Your task to perform on an android device: Open Chrome and go to settings Image 0: 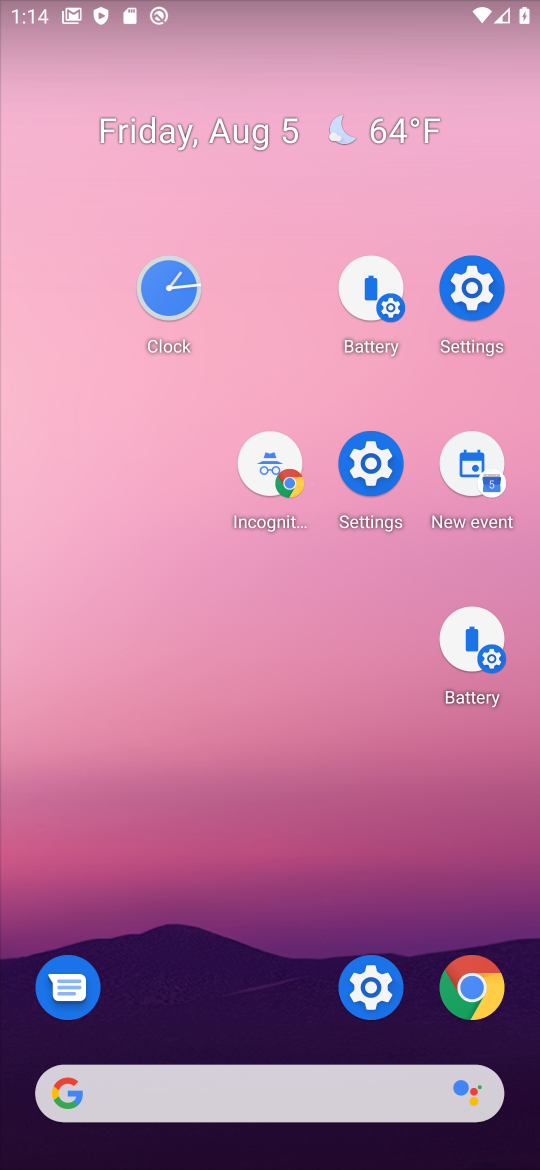
Step 0: drag from (330, 218) to (320, 299)
Your task to perform on an android device: Open Chrome and go to settings Image 1: 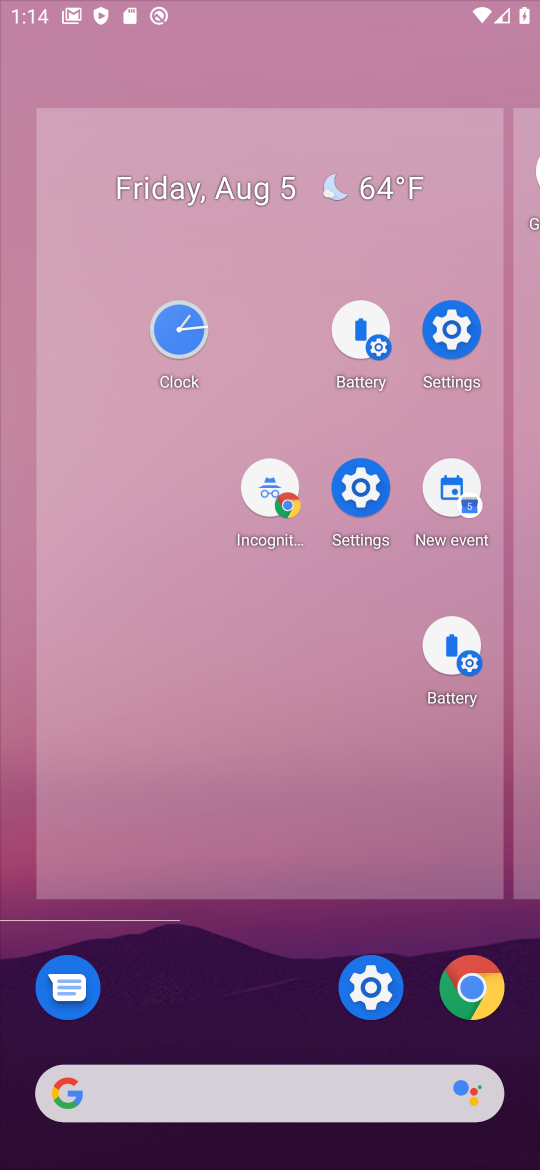
Step 1: drag from (312, 765) to (278, 182)
Your task to perform on an android device: Open Chrome and go to settings Image 2: 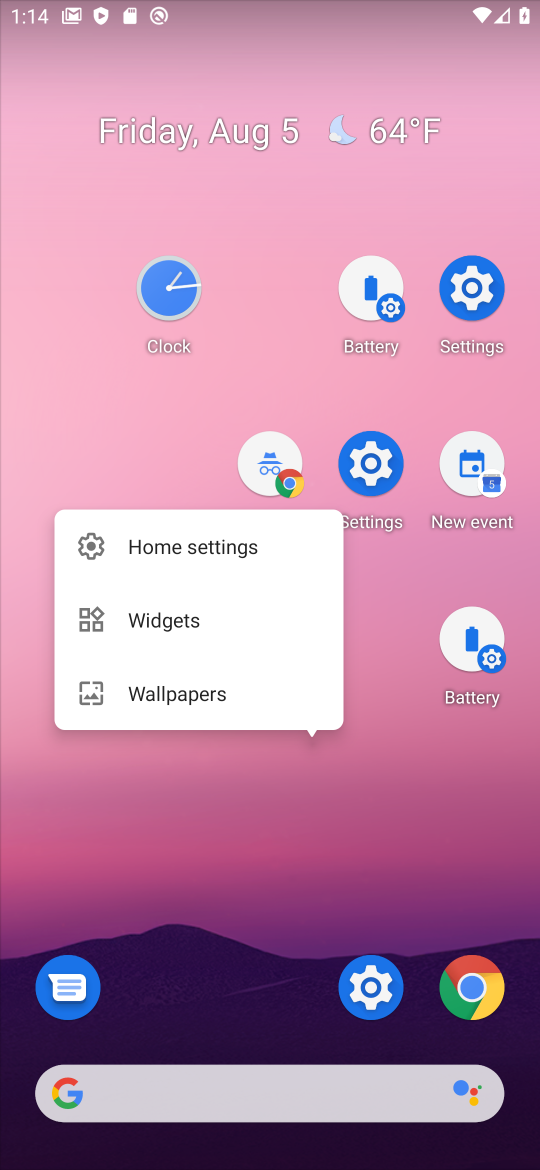
Step 2: drag from (427, 926) to (291, 309)
Your task to perform on an android device: Open Chrome and go to settings Image 3: 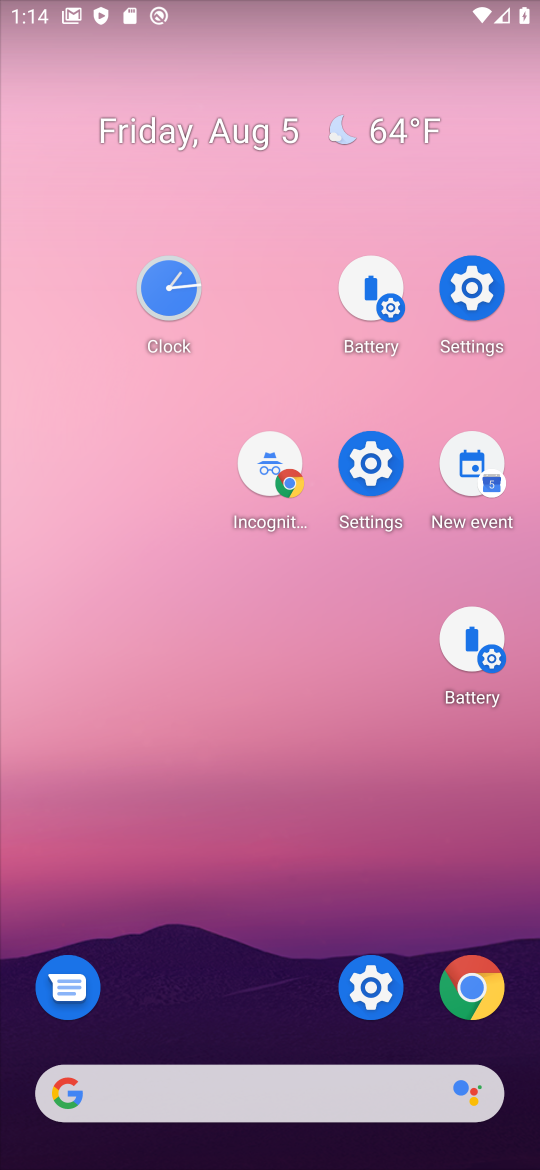
Step 3: drag from (378, 679) to (279, 221)
Your task to perform on an android device: Open Chrome and go to settings Image 4: 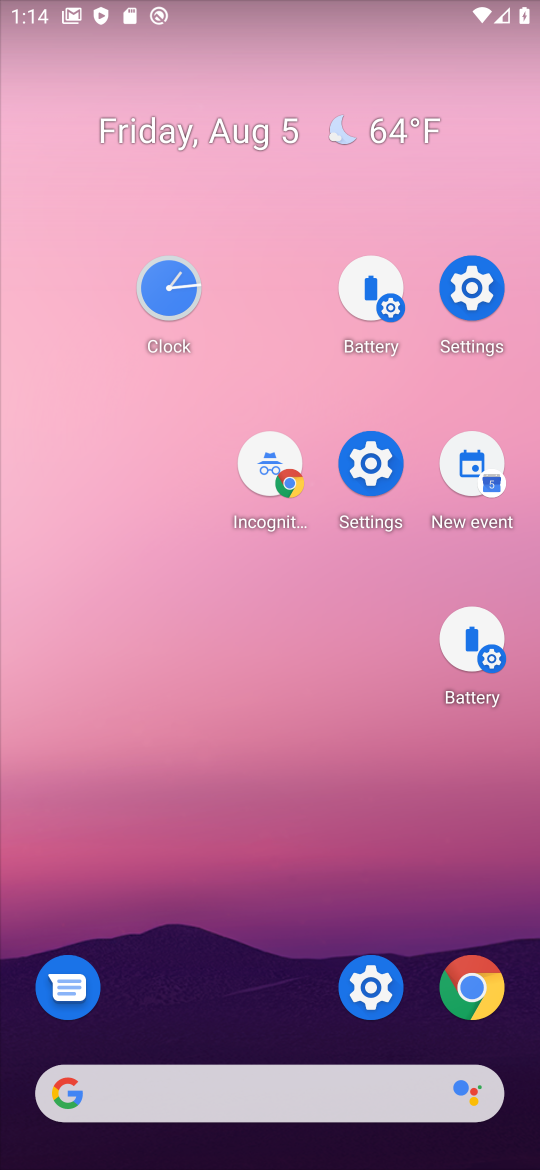
Step 4: drag from (314, 974) to (246, 479)
Your task to perform on an android device: Open Chrome and go to settings Image 5: 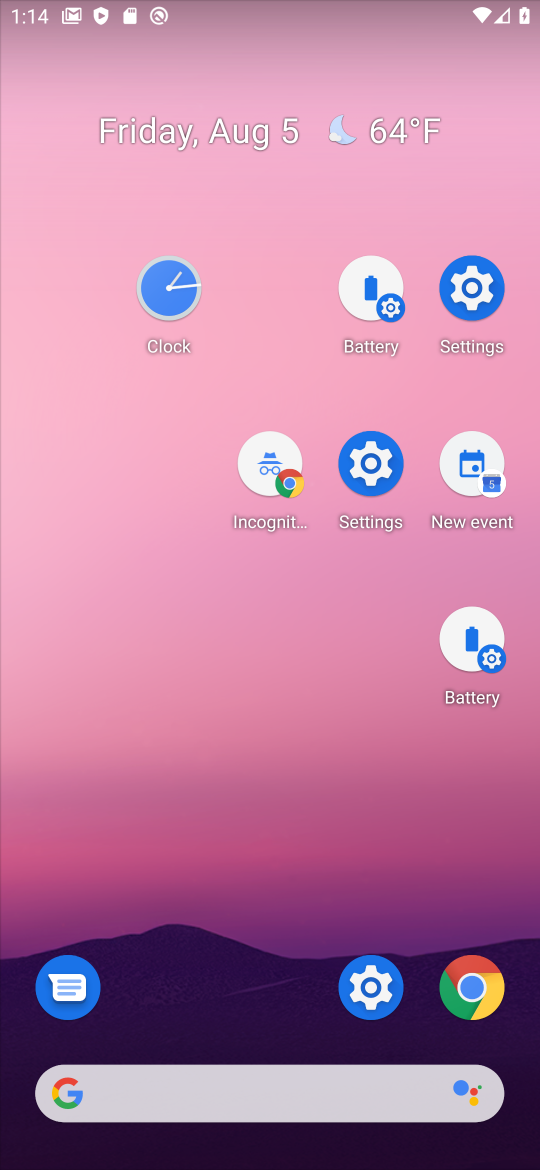
Step 5: click (368, 477)
Your task to perform on an android device: Open Chrome and go to settings Image 6: 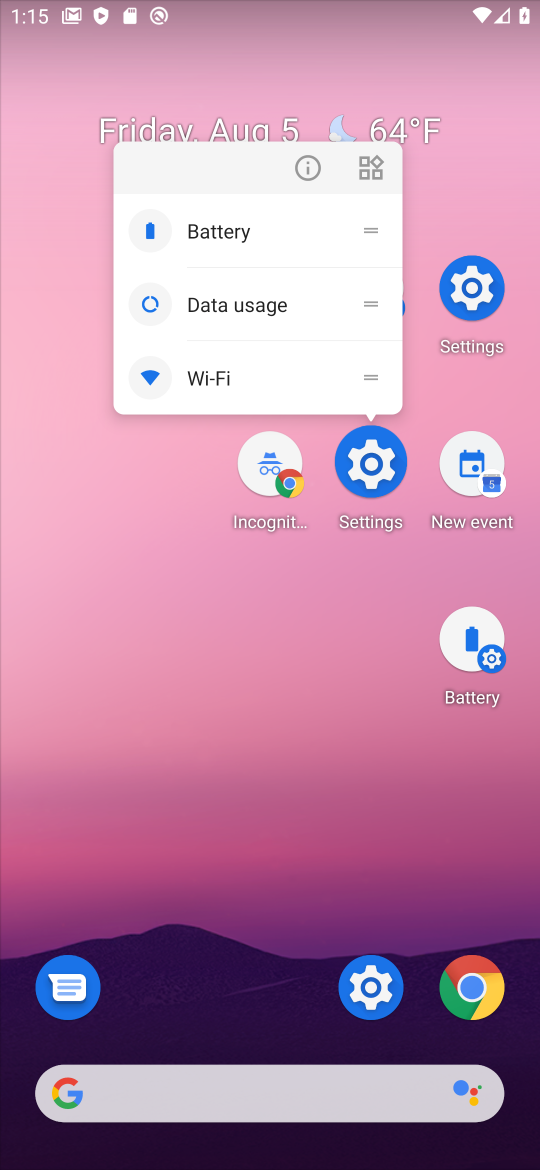
Step 6: drag from (303, 741) to (119, 718)
Your task to perform on an android device: Open Chrome and go to settings Image 7: 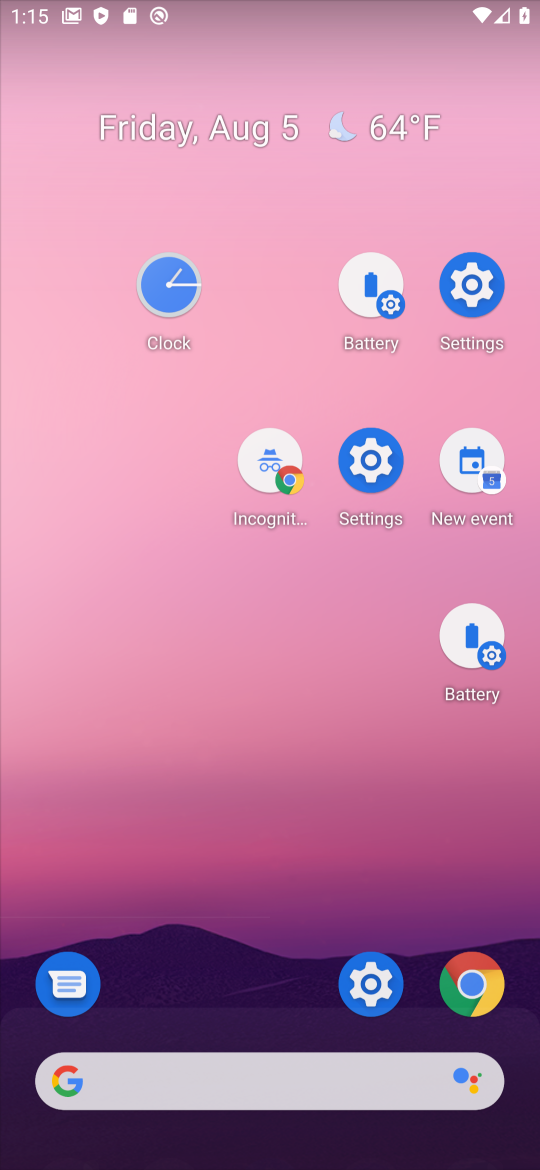
Step 7: click (462, 1004)
Your task to perform on an android device: Open Chrome and go to settings Image 8: 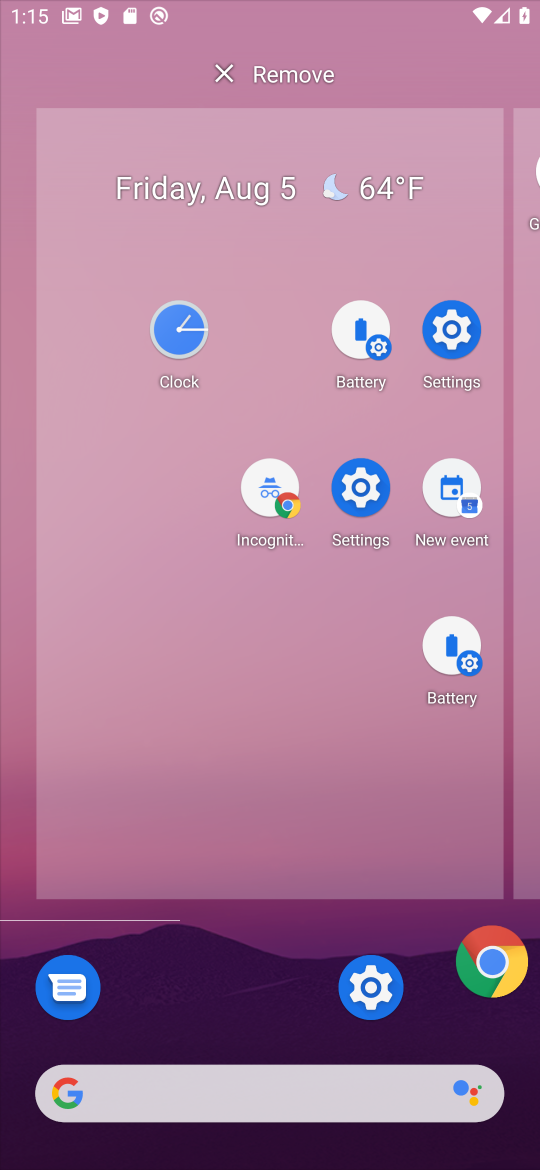
Step 8: drag from (330, 1018) to (222, 249)
Your task to perform on an android device: Open Chrome and go to settings Image 9: 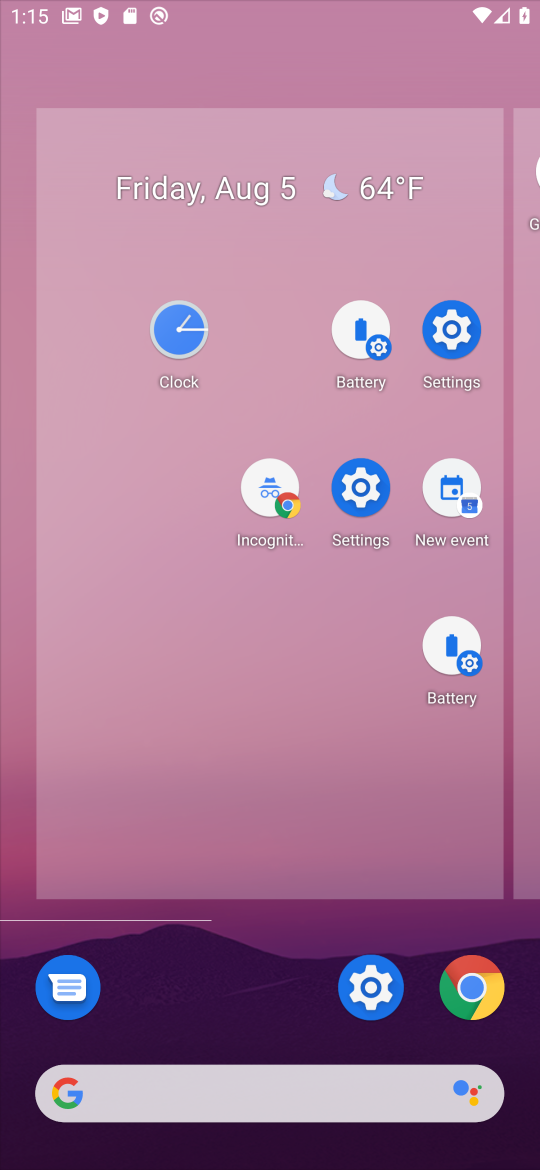
Step 9: drag from (233, 854) to (83, 358)
Your task to perform on an android device: Open Chrome and go to settings Image 10: 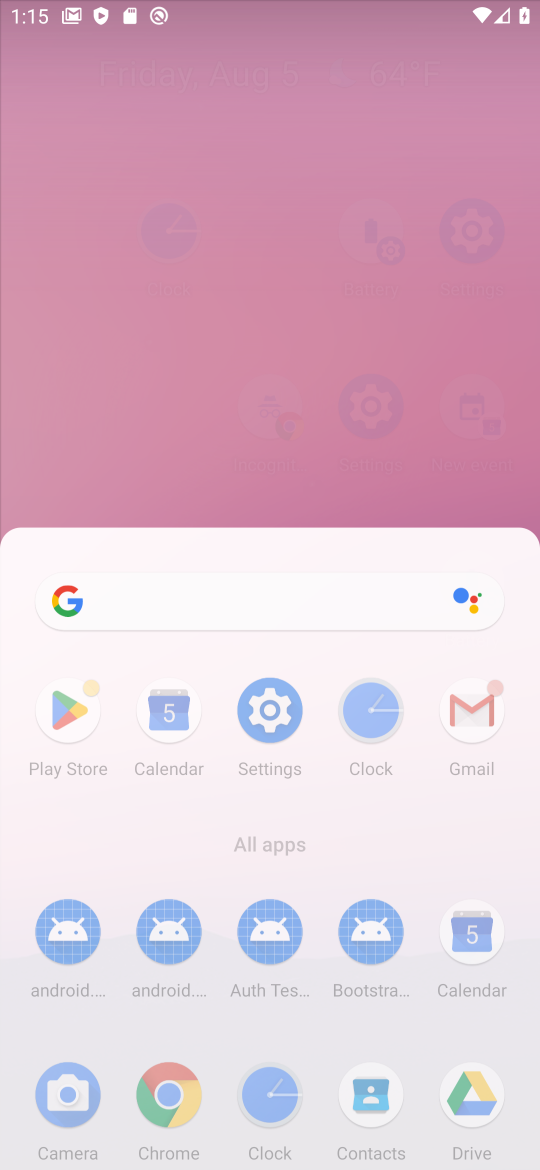
Step 10: drag from (224, 603) to (57, 146)
Your task to perform on an android device: Open Chrome and go to settings Image 11: 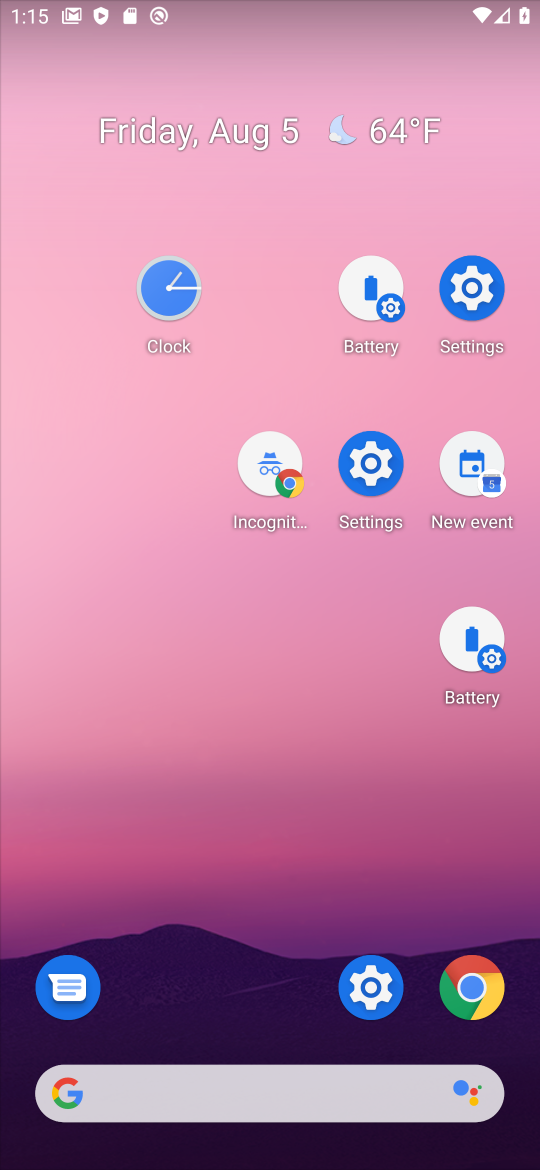
Step 11: drag from (190, 537) to (125, 152)
Your task to perform on an android device: Open Chrome and go to settings Image 12: 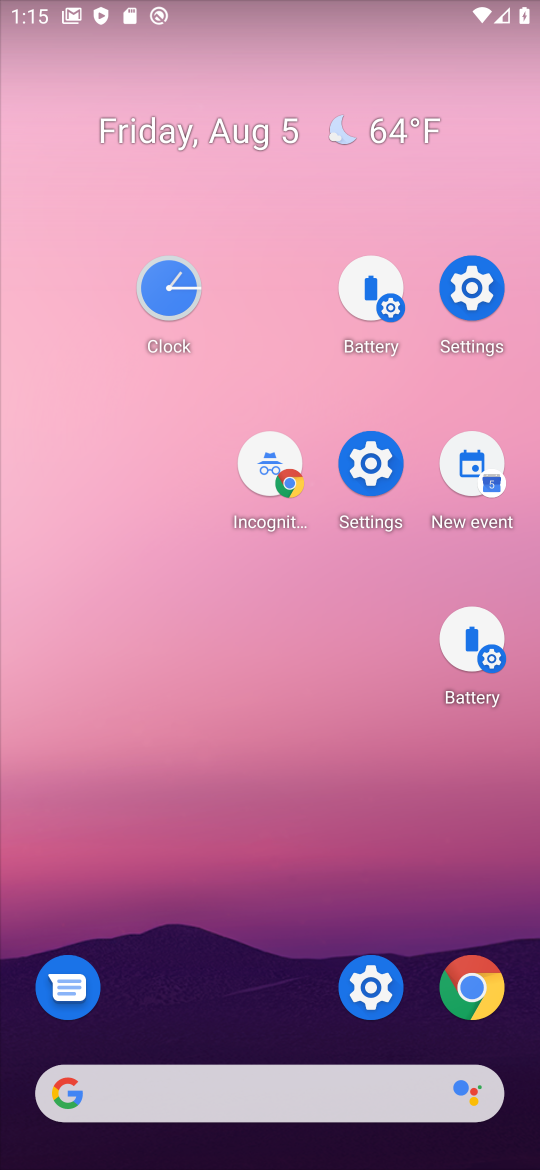
Step 12: drag from (171, 526) to (293, 164)
Your task to perform on an android device: Open Chrome and go to settings Image 13: 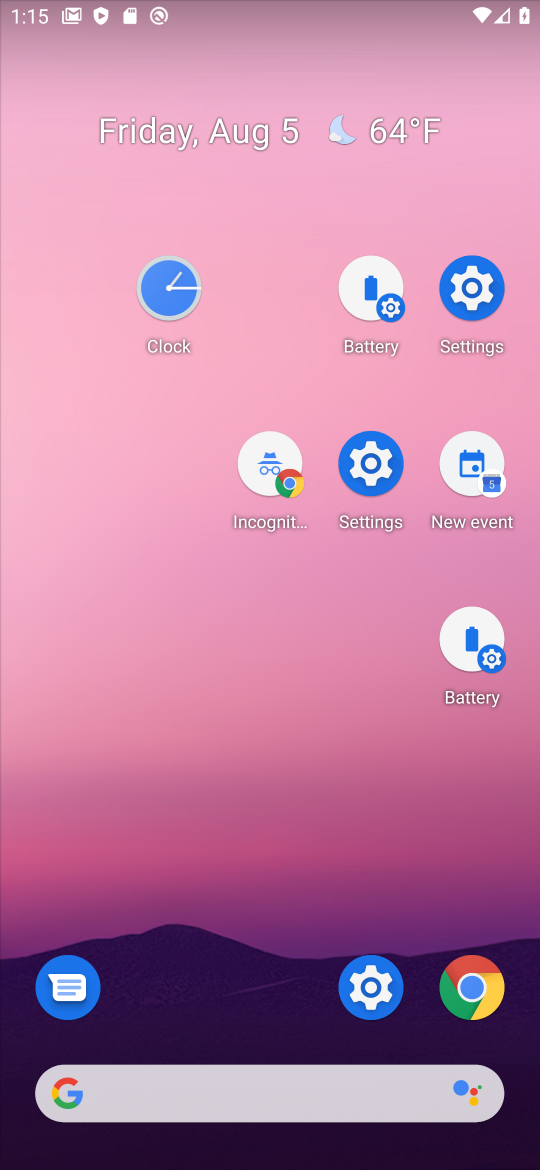
Step 13: drag from (258, 309) to (192, 173)
Your task to perform on an android device: Open Chrome and go to settings Image 14: 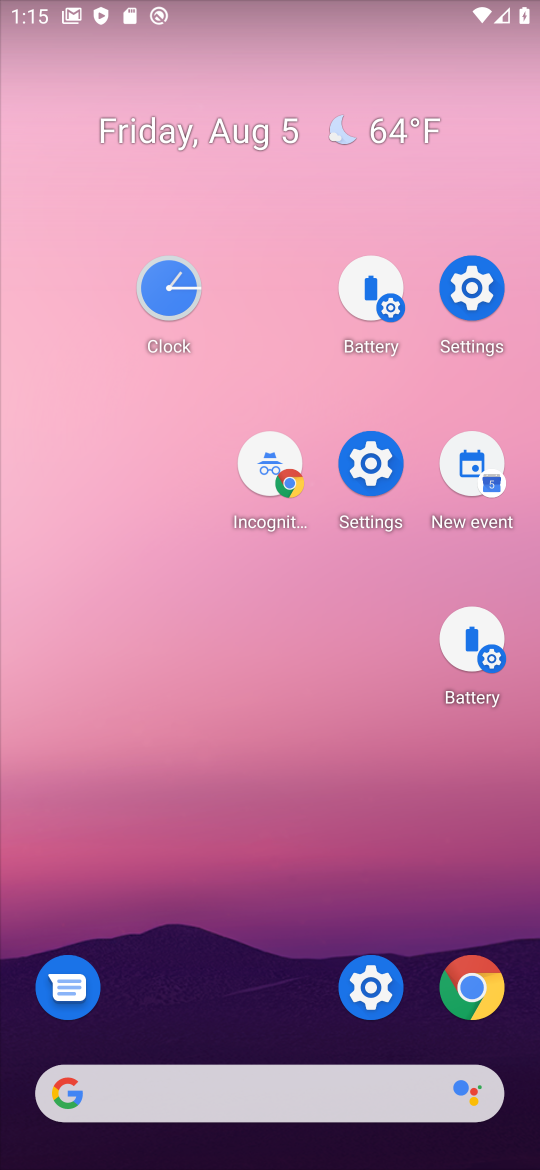
Step 14: drag from (345, 767) to (212, 246)
Your task to perform on an android device: Open Chrome and go to settings Image 15: 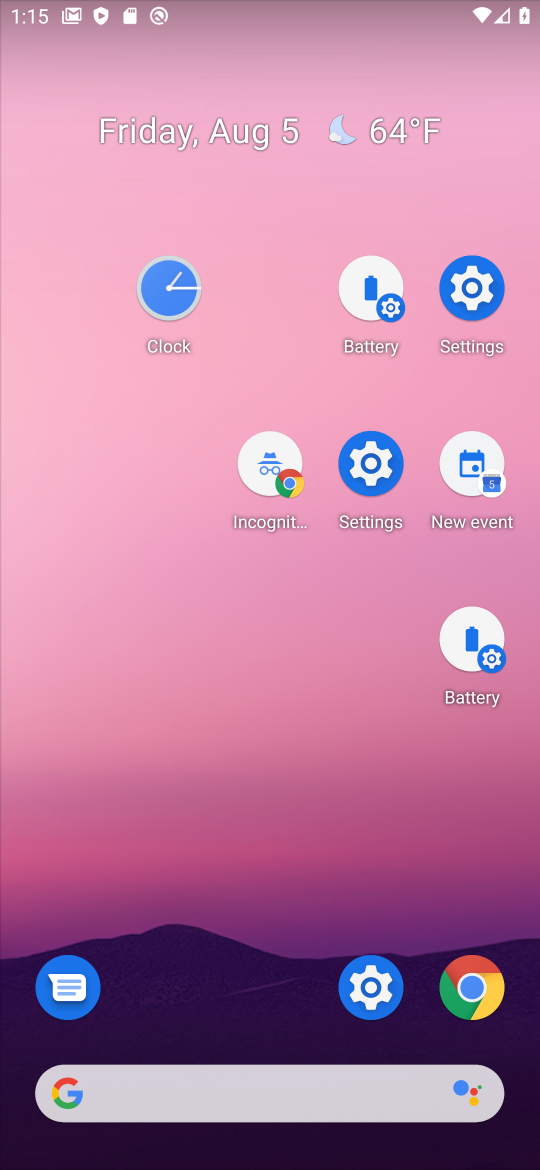
Step 15: click (254, 141)
Your task to perform on an android device: Open Chrome and go to settings Image 16: 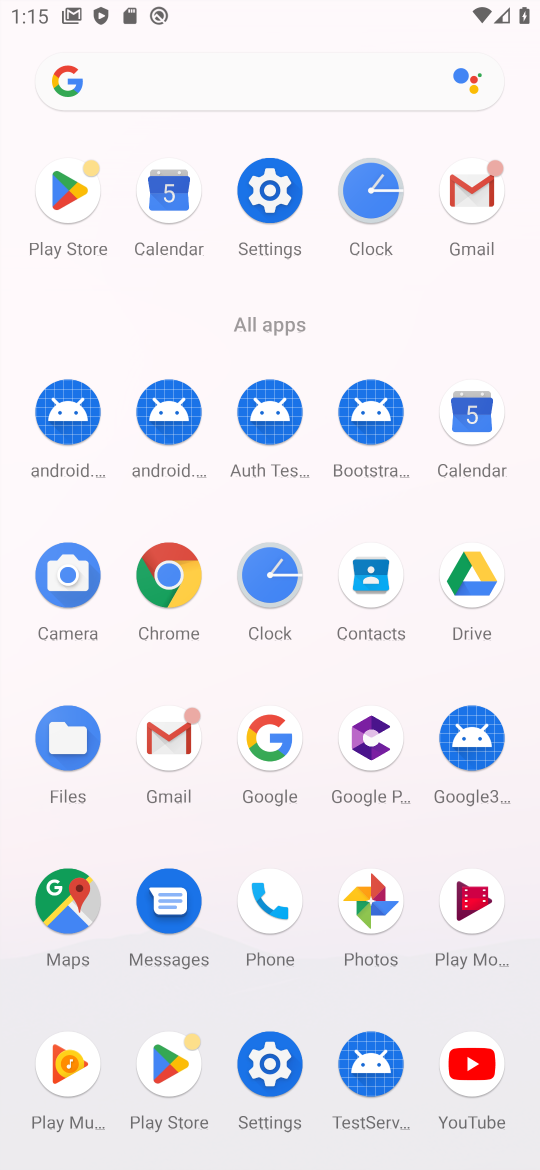
Step 16: click (285, 1082)
Your task to perform on an android device: Open Chrome and go to settings Image 17: 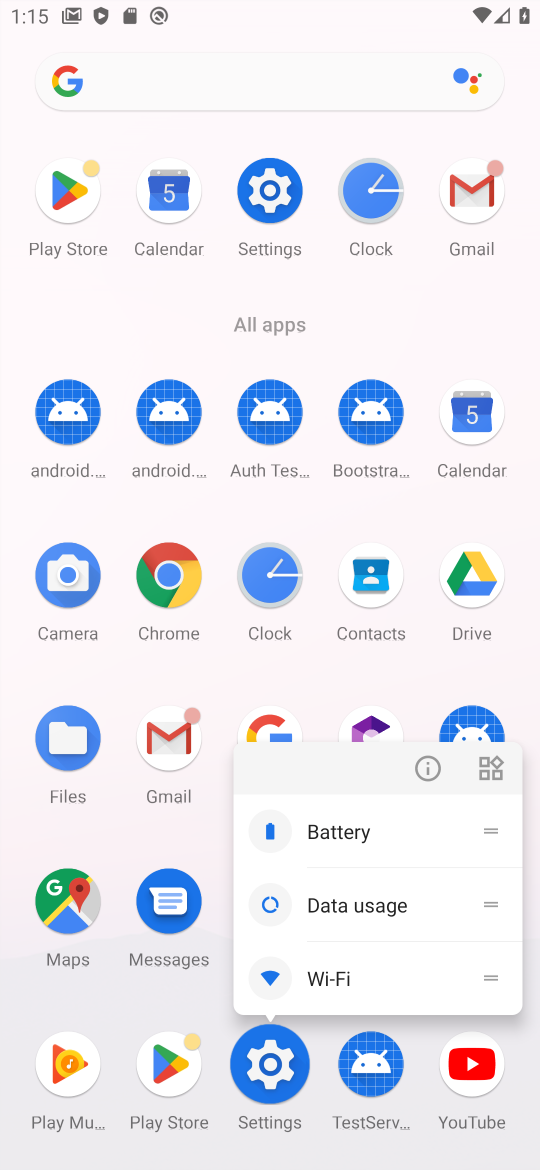
Step 17: click (280, 1083)
Your task to perform on an android device: Open Chrome and go to settings Image 18: 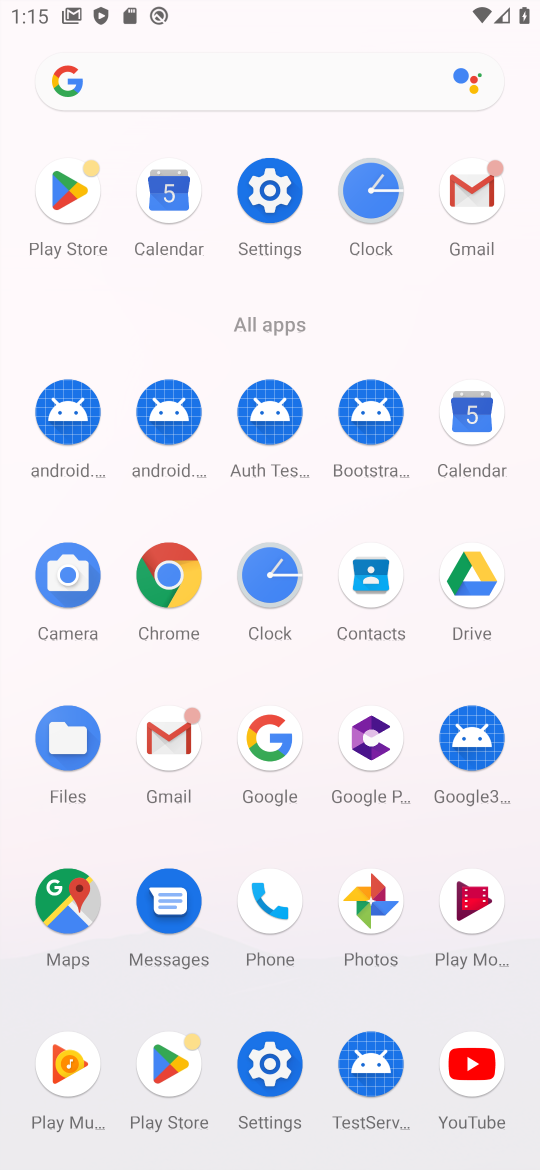
Step 18: click (280, 1076)
Your task to perform on an android device: Open Chrome and go to settings Image 19: 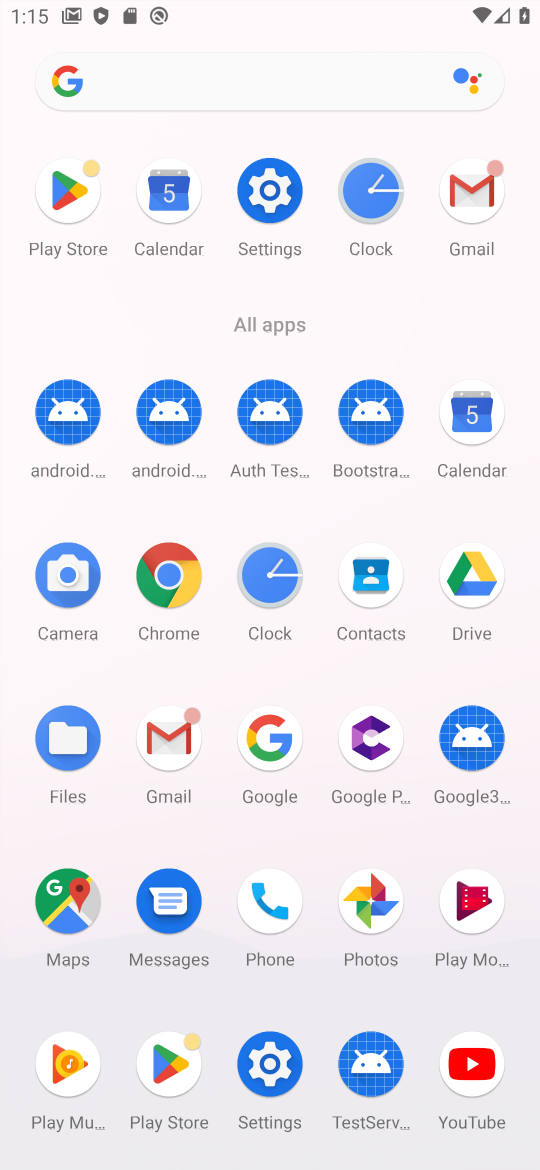
Step 19: click (277, 1073)
Your task to perform on an android device: Open Chrome and go to settings Image 20: 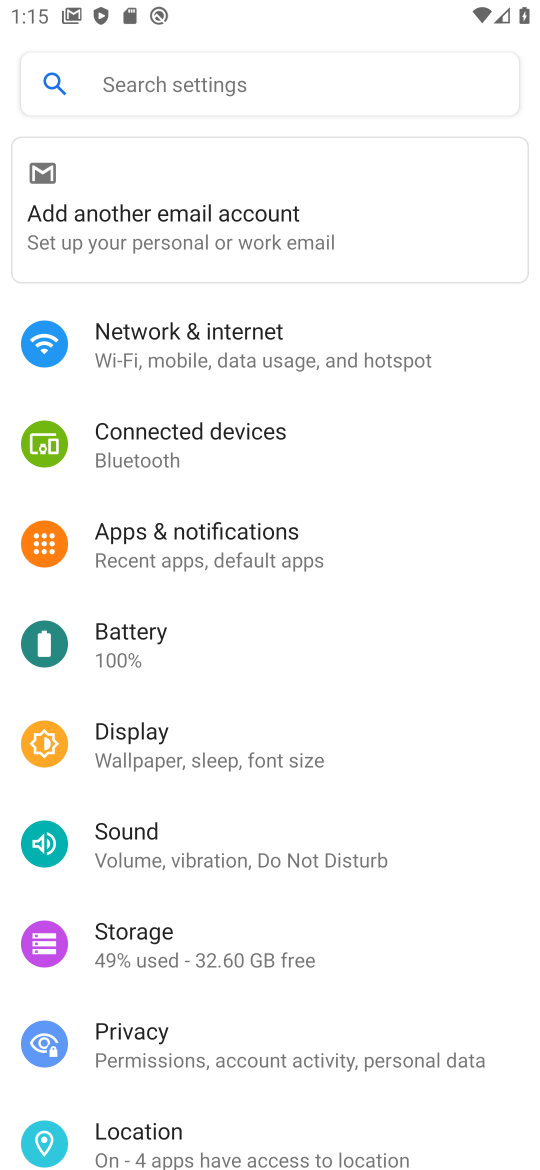
Step 20: press back button
Your task to perform on an android device: Open Chrome and go to settings Image 21: 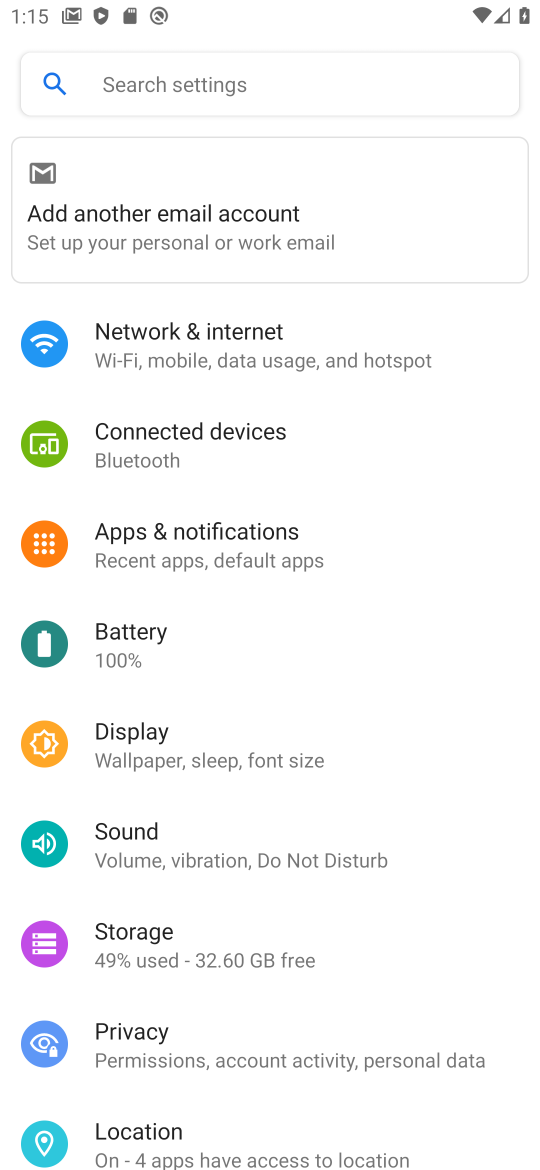
Step 21: press back button
Your task to perform on an android device: Open Chrome and go to settings Image 22: 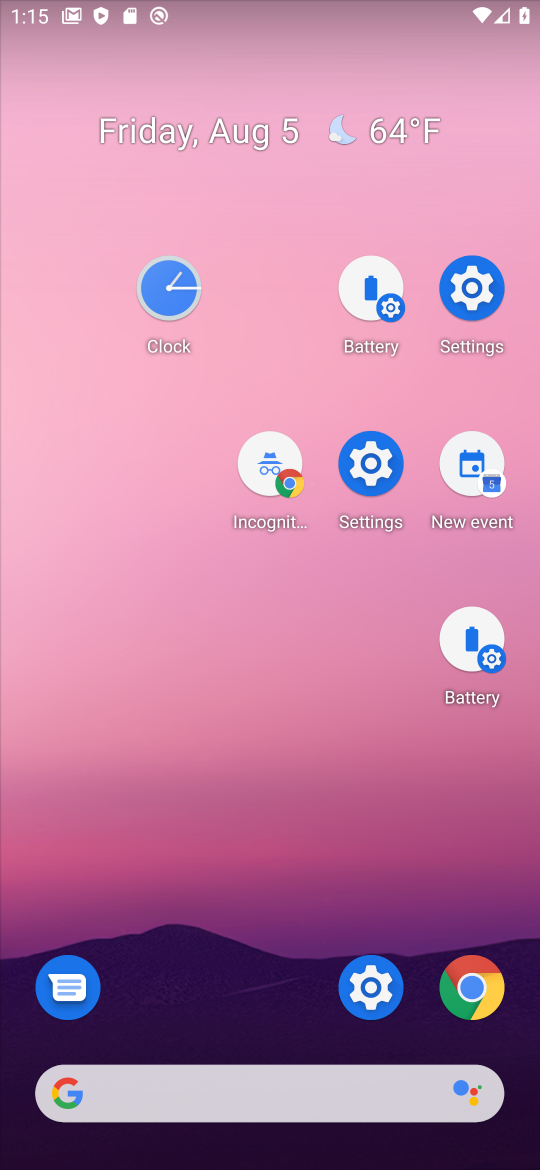
Step 22: drag from (360, 1065) to (249, 317)
Your task to perform on an android device: Open Chrome and go to settings Image 23: 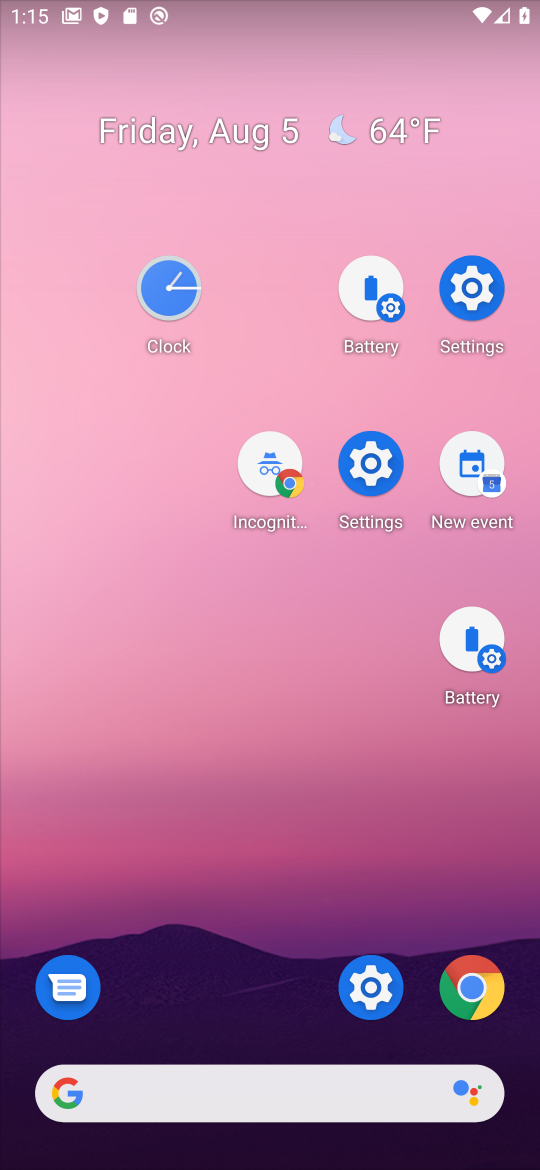
Step 23: click (136, 444)
Your task to perform on an android device: Open Chrome and go to settings Image 24: 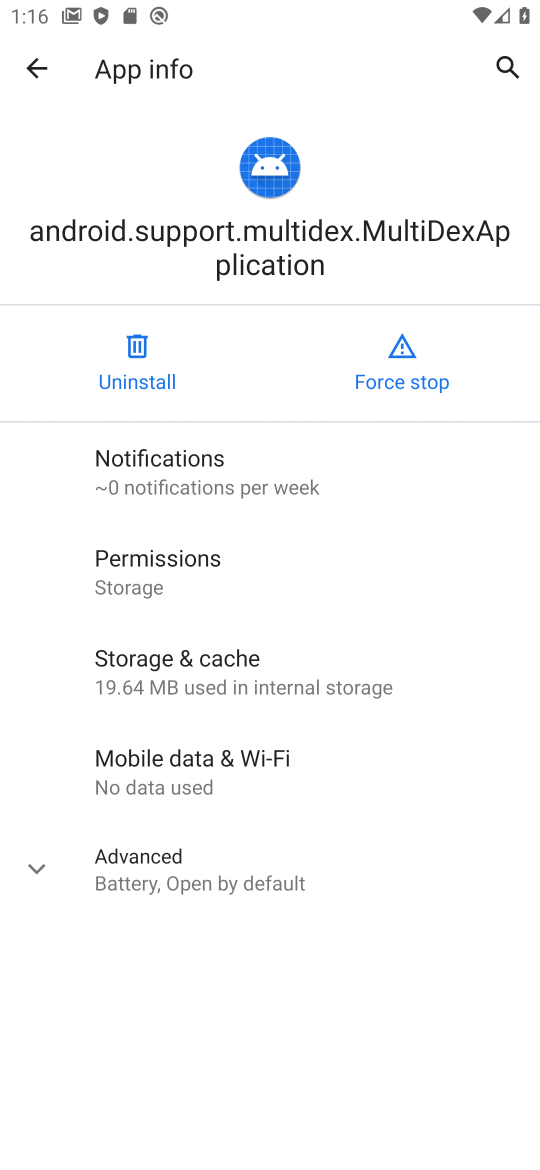
Step 24: drag from (144, 455) to (80, 3)
Your task to perform on an android device: Open Chrome and go to settings Image 25: 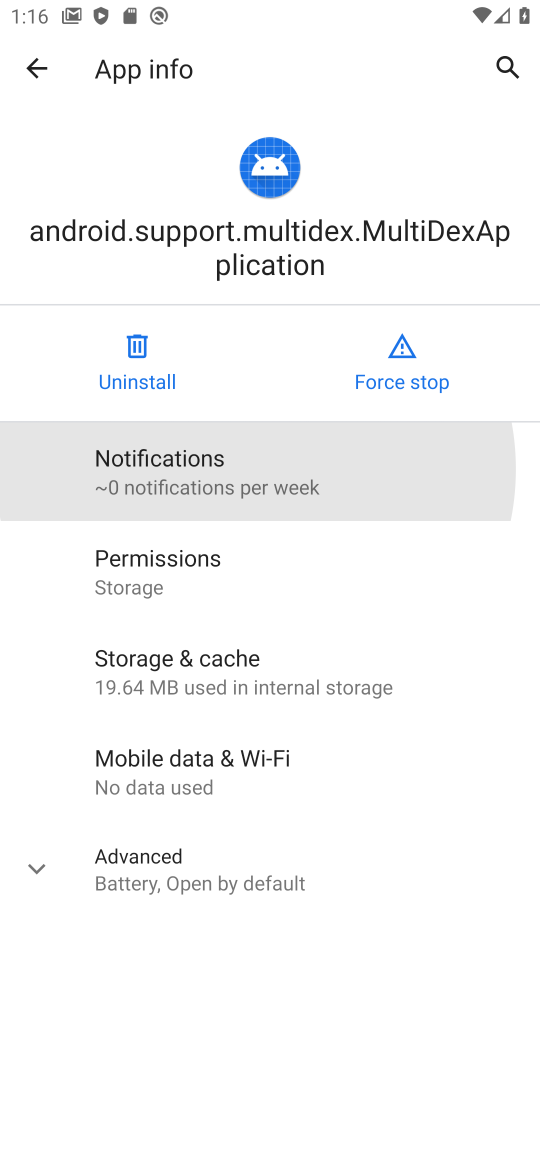
Step 25: click (148, 252)
Your task to perform on an android device: Open Chrome and go to settings Image 26: 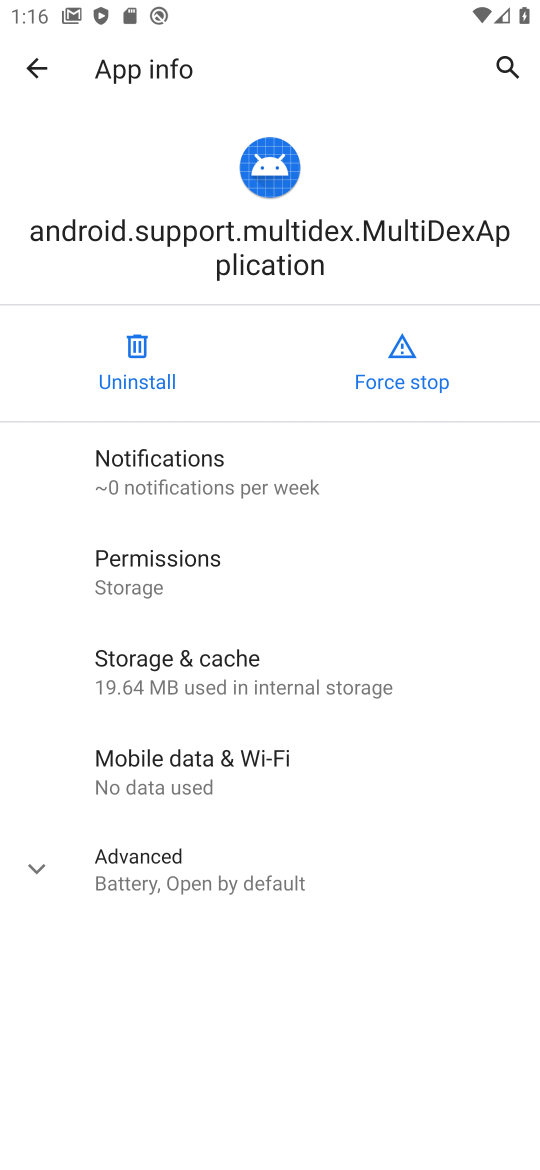
Step 26: click (30, 71)
Your task to perform on an android device: Open Chrome and go to settings Image 27: 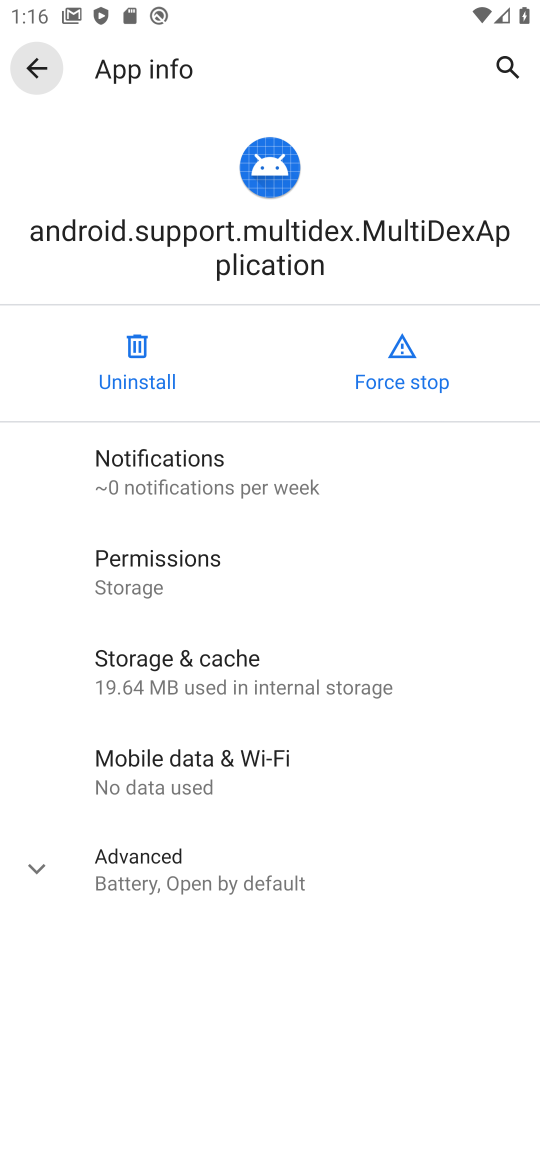
Step 27: click (30, 71)
Your task to perform on an android device: Open Chrome and go to settings Image 28: 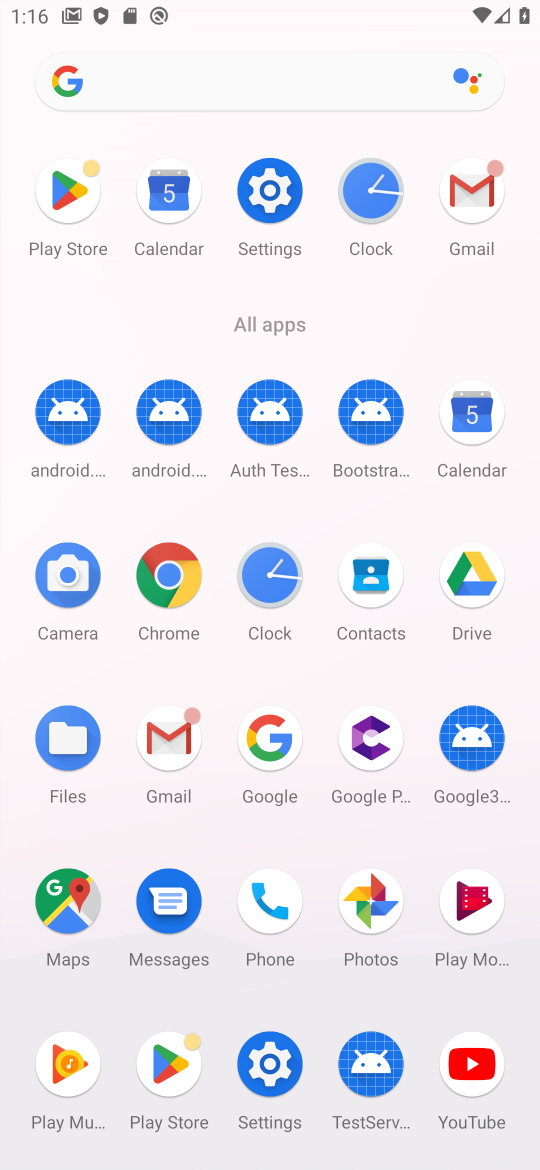
Step 28: click (279, 1074)
Your task to perform on an android device: Open Chrome and go to settings Image 29: 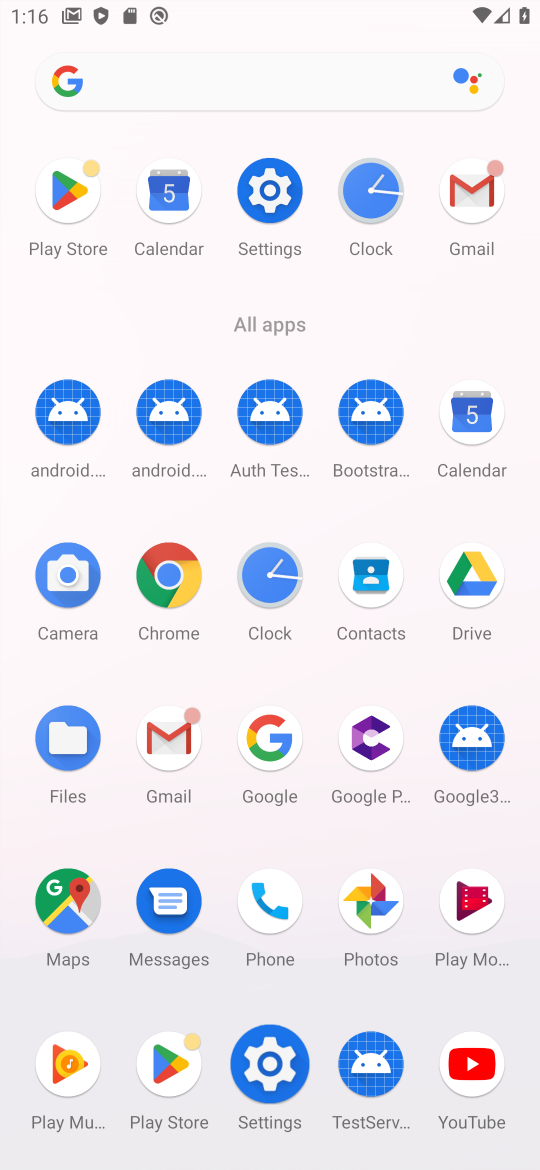
Step 29: click (279, 1086)
Your task to perform on an android device: Open Chrome and go to settings Image 30: 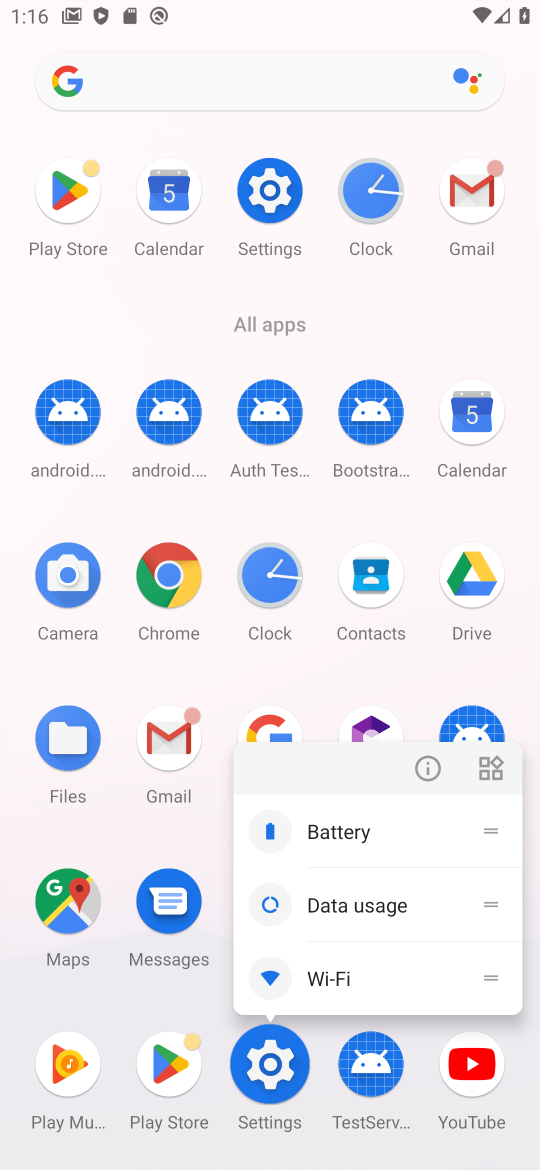
Step 30: click (279, 1087)
Your task to perform on an android device: Open Chrome and go to settings Image 31: 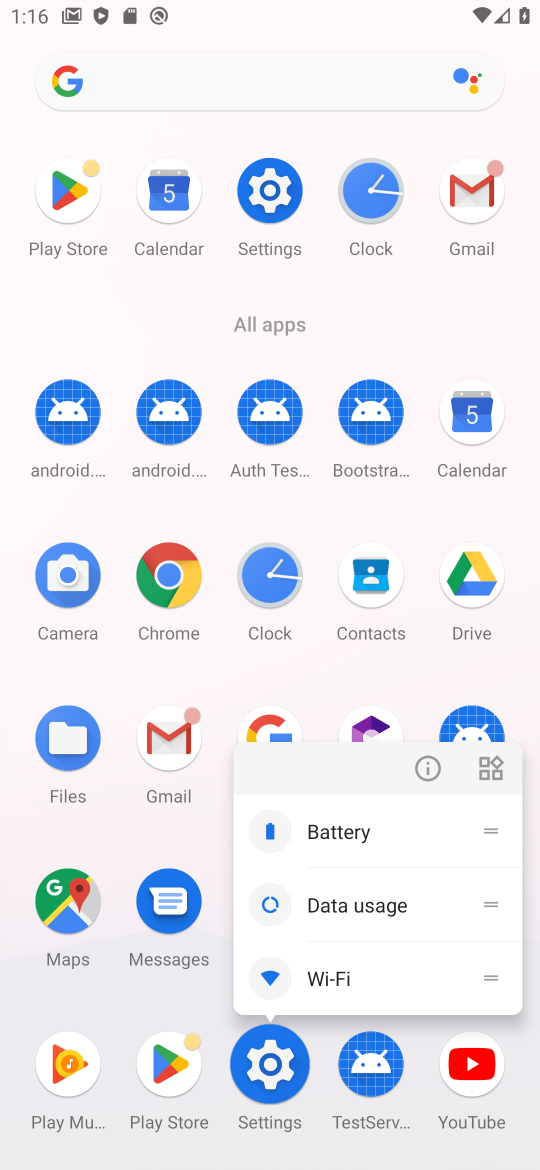
Step 31: click (279, 1087)
Your task to perform on an android device: Open Chrome and go to settings Image 32: 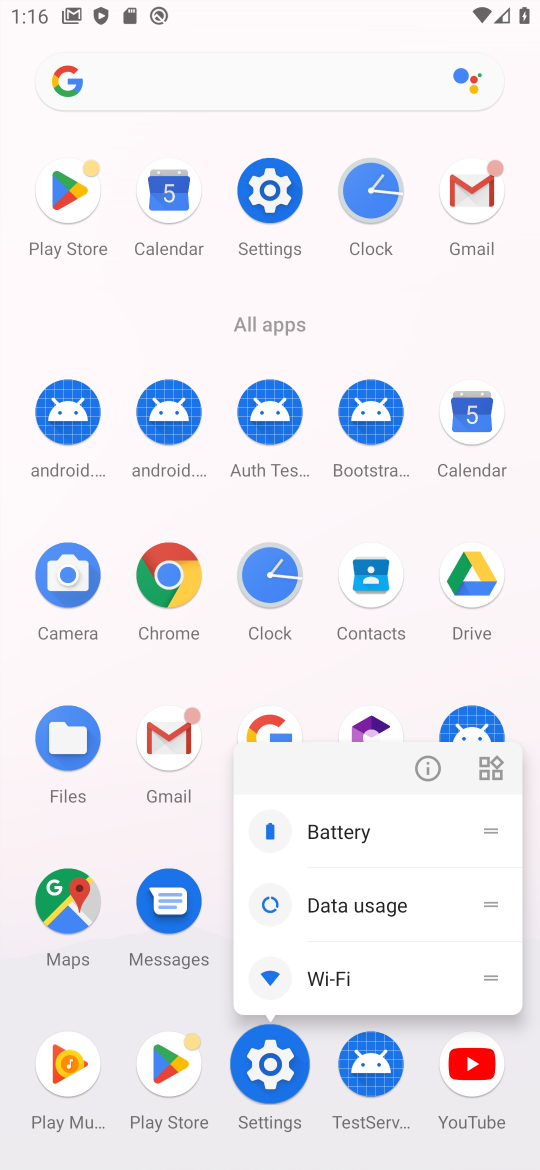
Step 32: click (282, 1088)
Your task to perform on an android device: Open Chrome and go to settings Image 33: 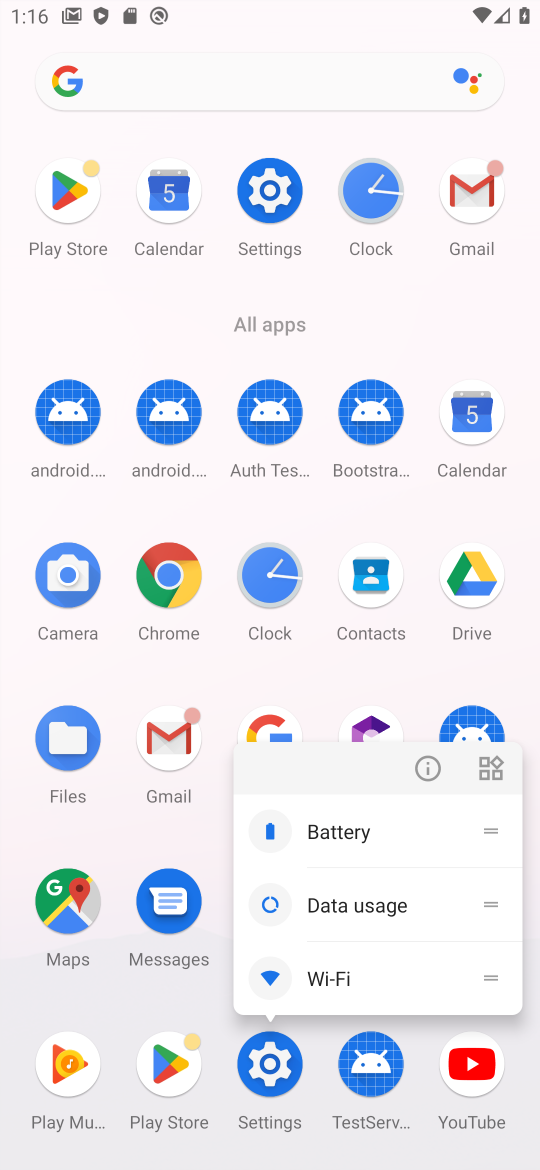
Step 33: click (296, 1081)
Your task to perform on an android device: Open Chrome and go to settings Image 34: 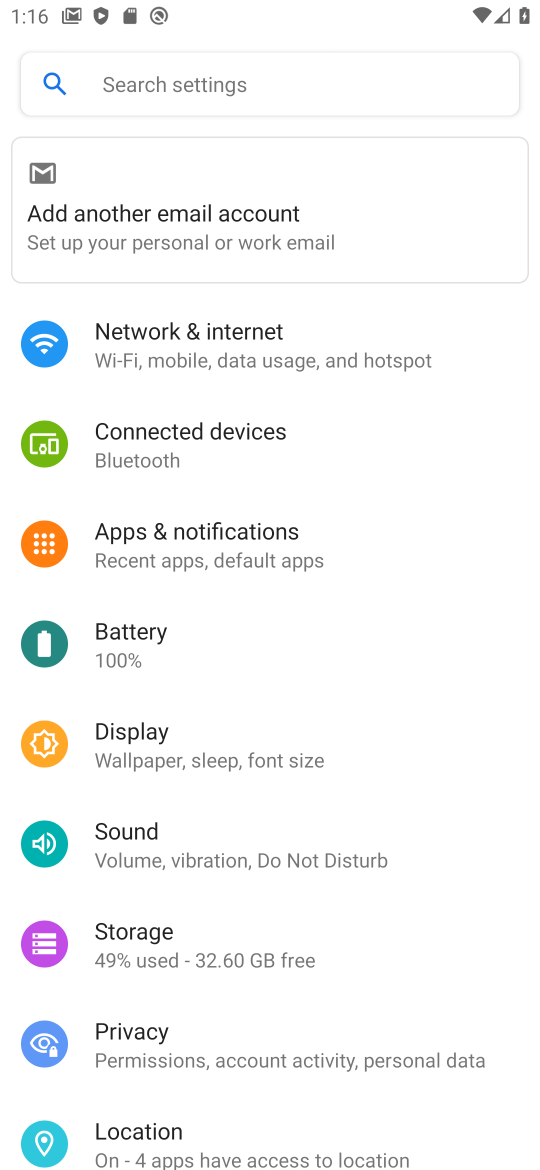
Step 34: press back button
Your task to perform on an android device: Open Chrome and go to settings Image 35: 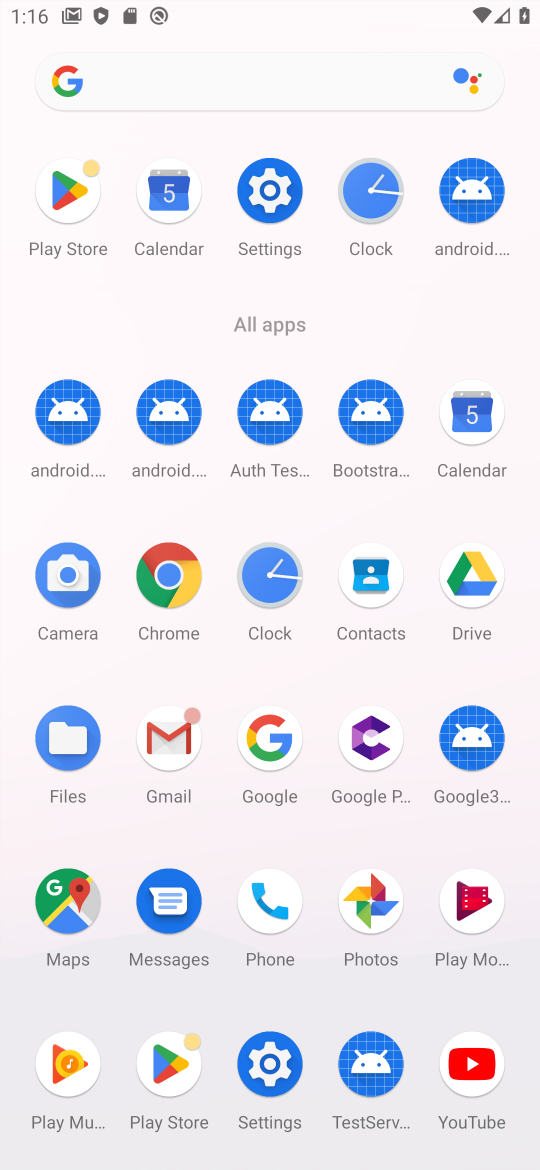
Step 35: click (297, 1065)
Your task to perform on an android device: Open Chrome and go to settings Image 36: 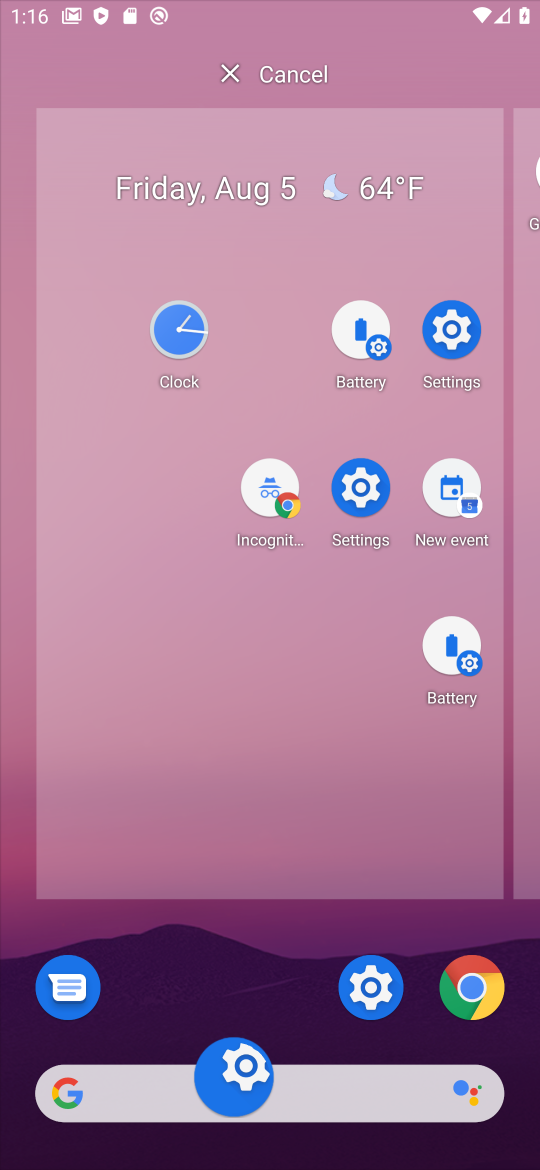
Step 36: drag from (261, 1078) to (481, 74)
Your task to perform on an android device: Open Chrome and go to settings Image 37: 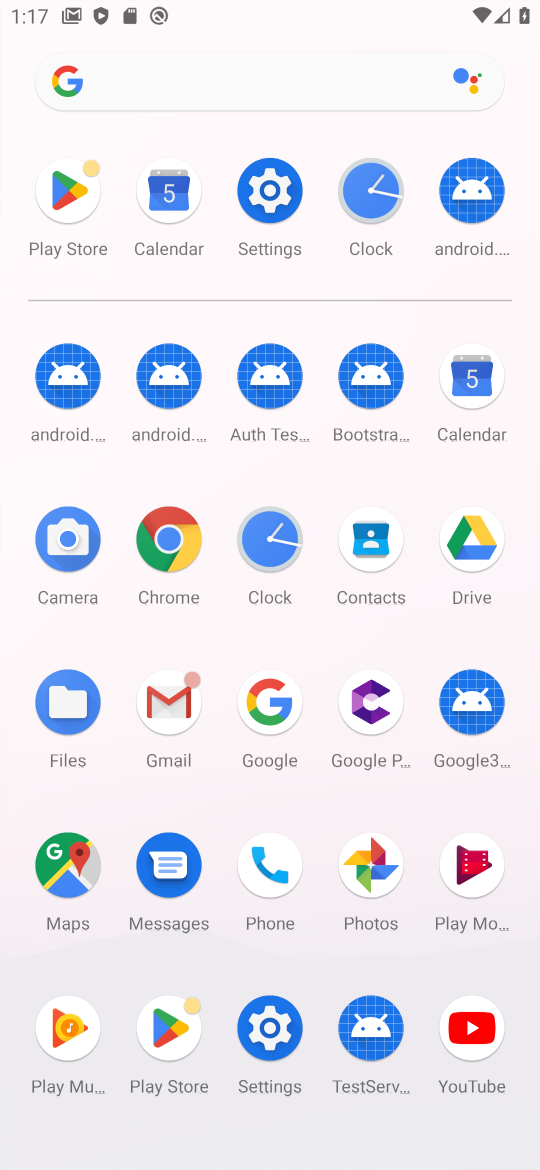
Step 37: click (177, 547)
Your task to perform on an android device: Open Chrome and go to settings Image 38: 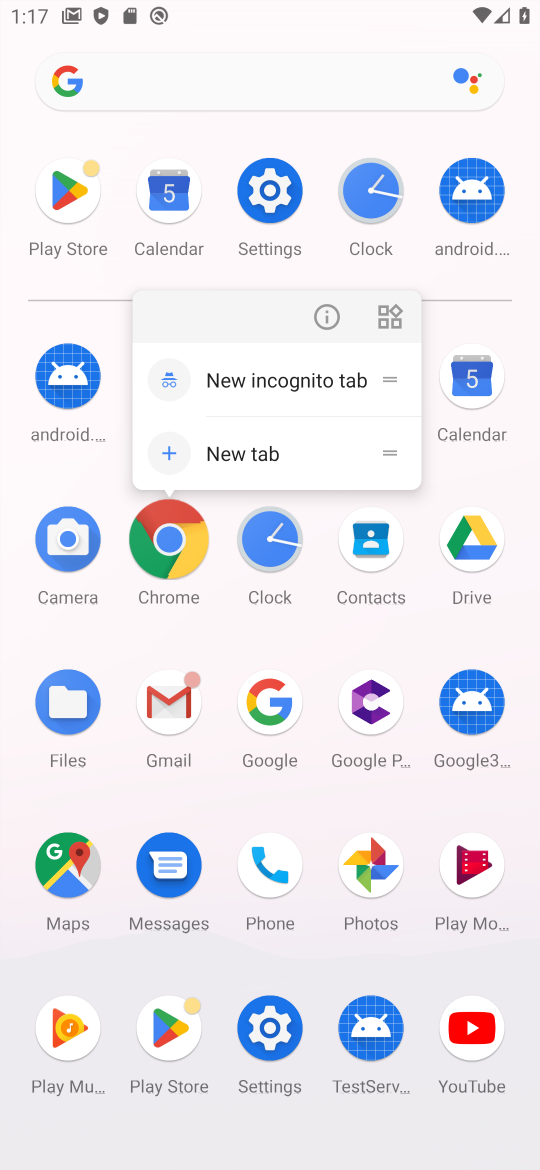
Step 38: click (178, 546)
Your task to perform on an android device: Open Chrome and go to settings Image 39: 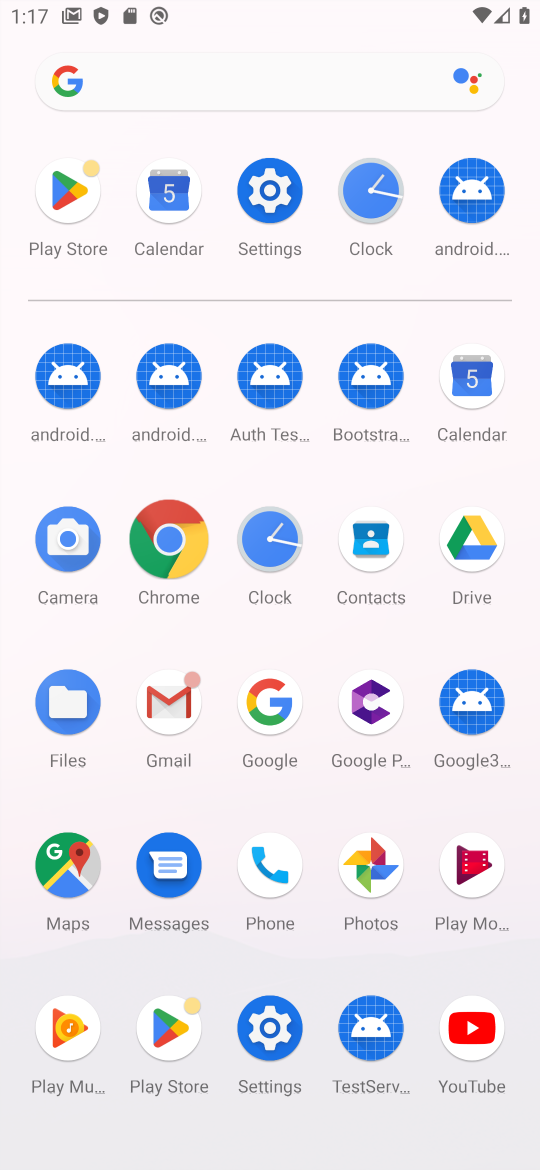
Step 39: click (178, 546)
Your task to perform on an android device: Open Chrome and go to settings Image 40: 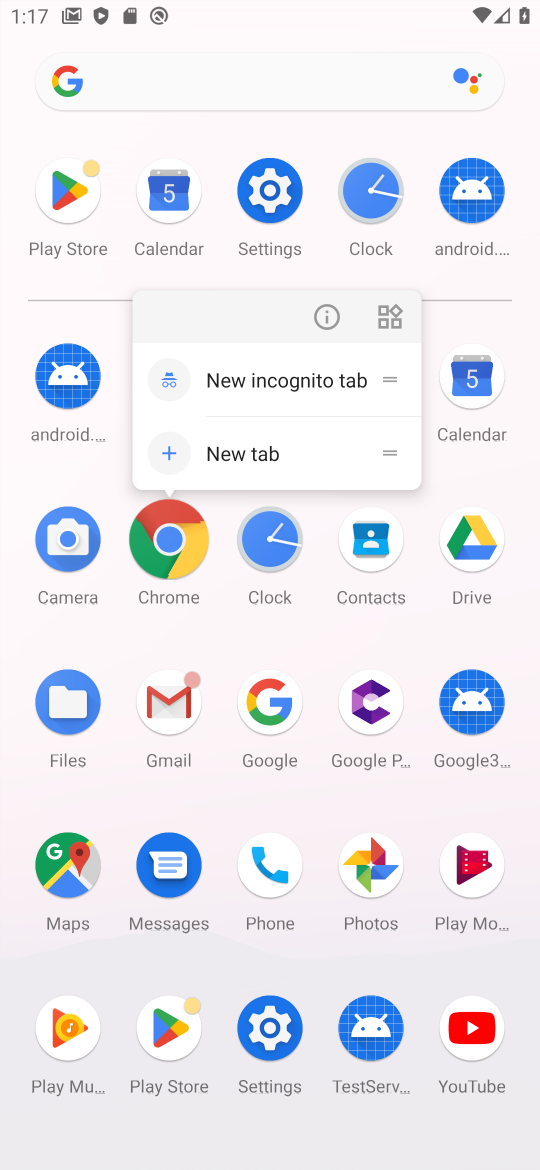
Step 40: click (179, 547)
Your task to perform on an android device: Open Chrome and go to settings Image 41: 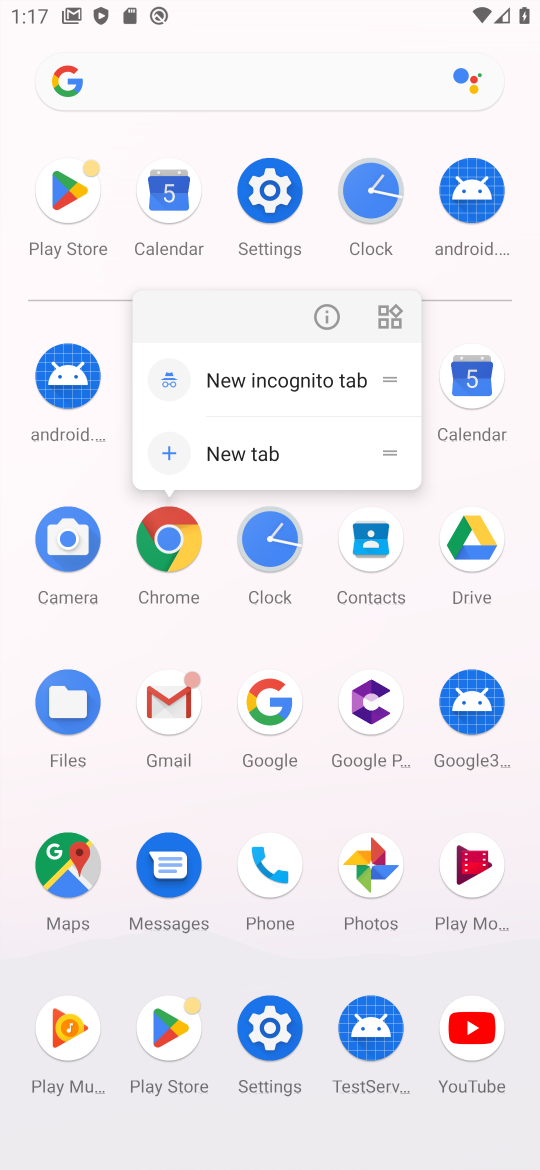
Step 41: click (189, 549)
Your task to perform on an android device: Open Chrome and go to settings Image 42: 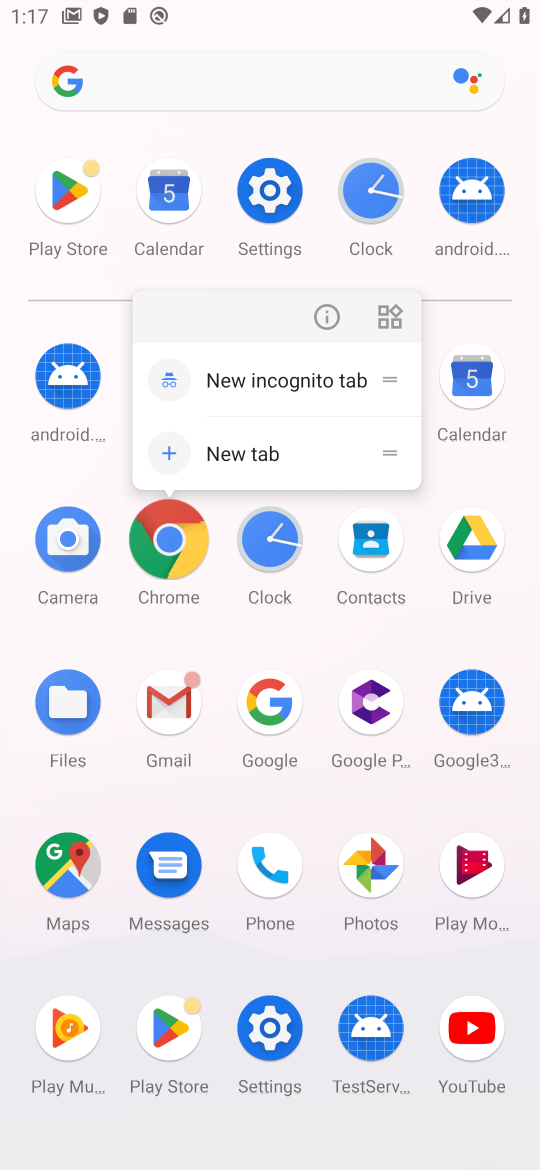
Step 42: click (186, 553)
Your task to perform on an android device: Open Chrome and go to settings Image 43: 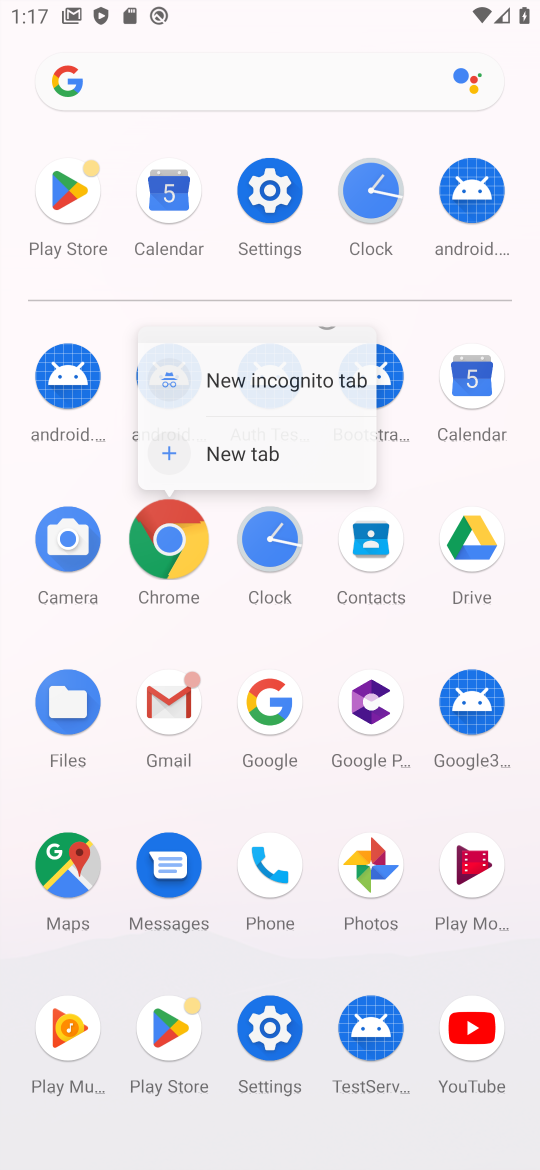
Step 43: click (189, 544)
Your task to perform on an android device: Open Chrome and go to settings Image 44: 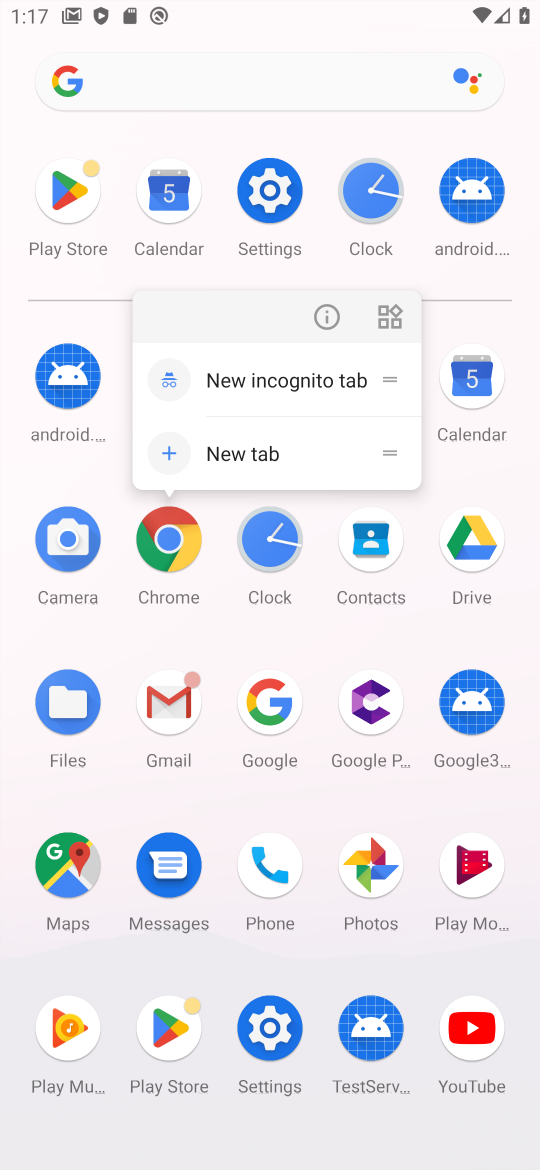
Step 44: click (195, 536)
Your task to perform on an android device: Open Chrome and go to settings Image 45: 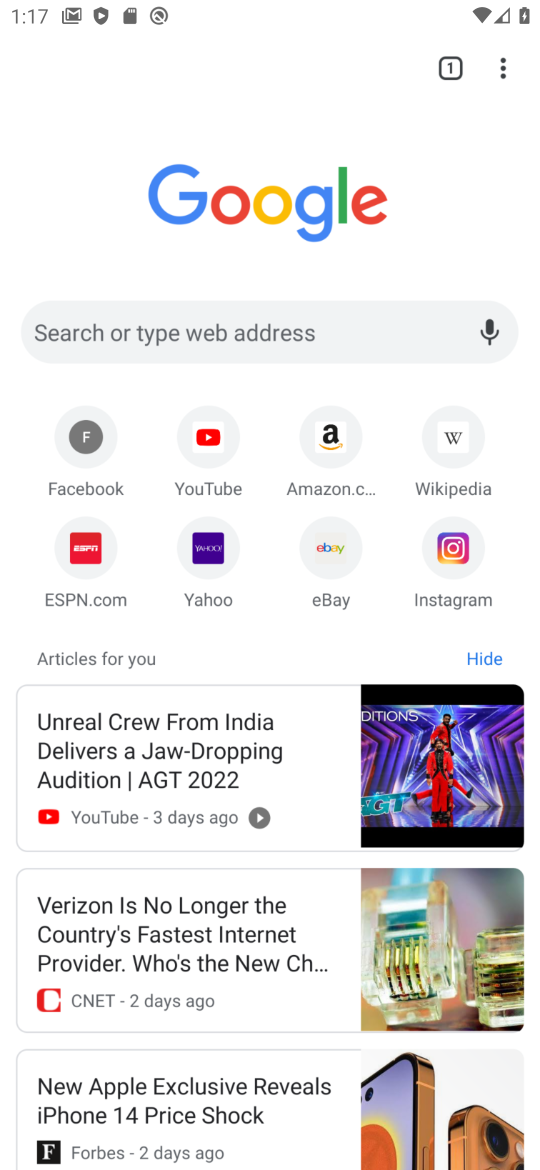
Step 45: click (173, 517)
Your task to perform on an android device: Open Chrome and go to settings Image 46: 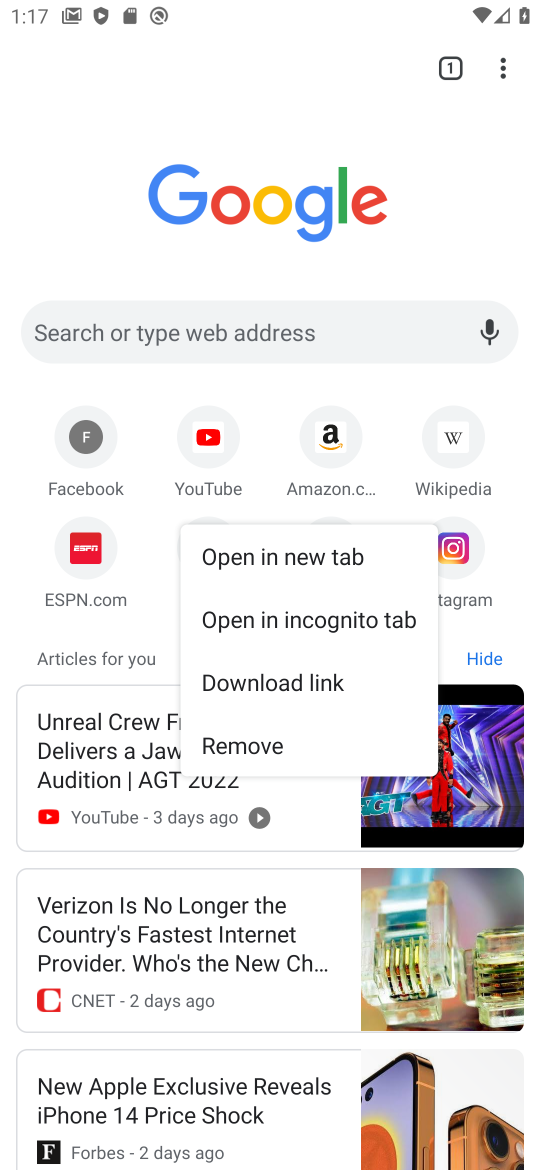
Step 46: click (282, 567)
Your task to perform on an android device: Open Chrome and go to settings Image 47: 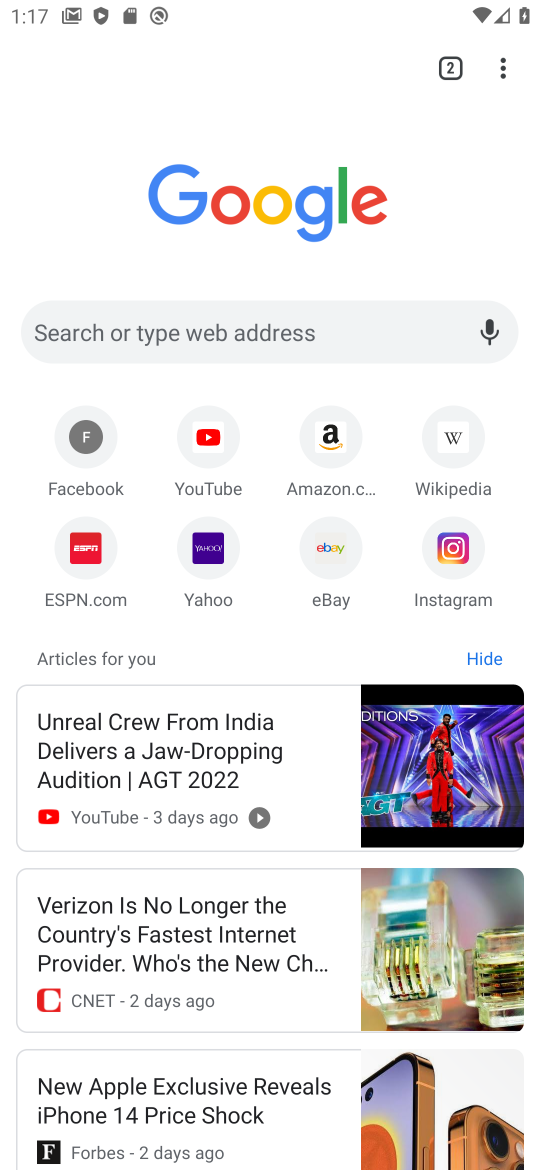
Step 47: drag from (505, 76) to (461, 486)
Your task to perform on an android device: Open Chrome and go to settings Image 48: 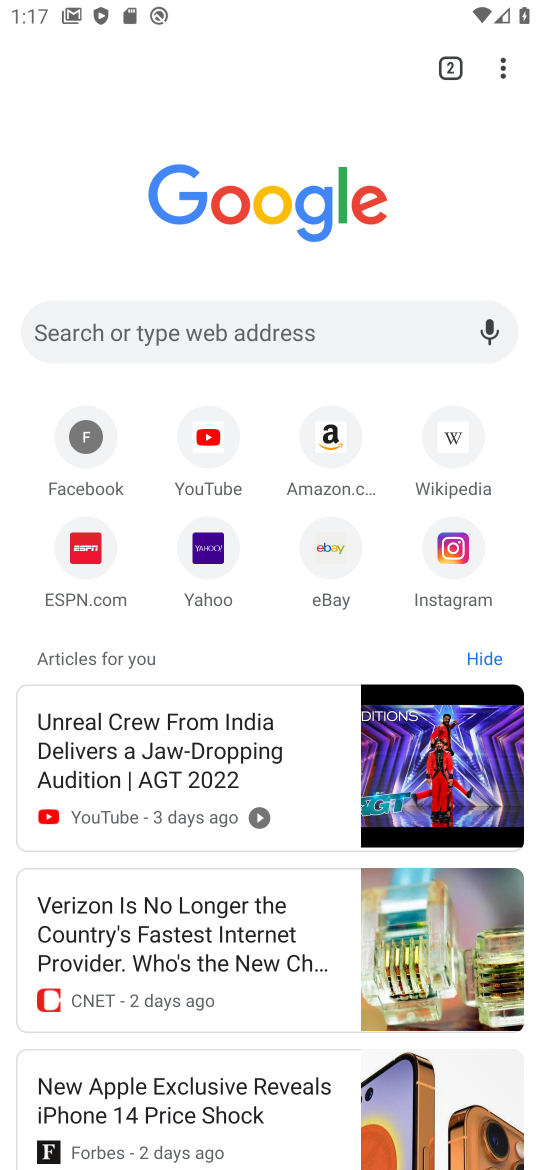
Step 48: click (255, 585)
Your task to perform on an android device: Open Chrome and go to settings Image 49: 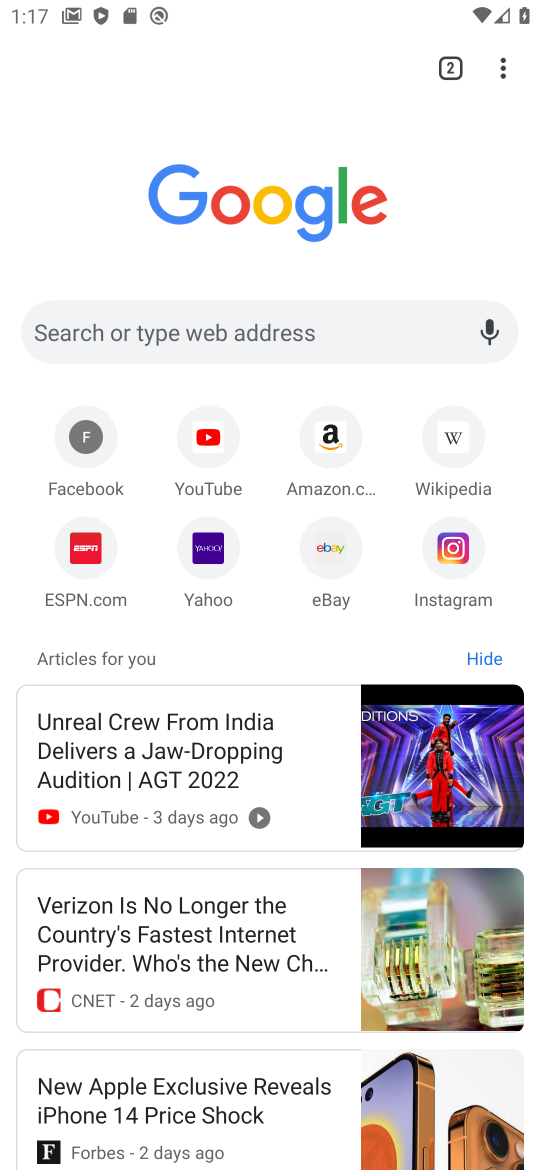
Step 49: task complete